Your task to perform on an android device: allow cookies in the chrome app Image 0: 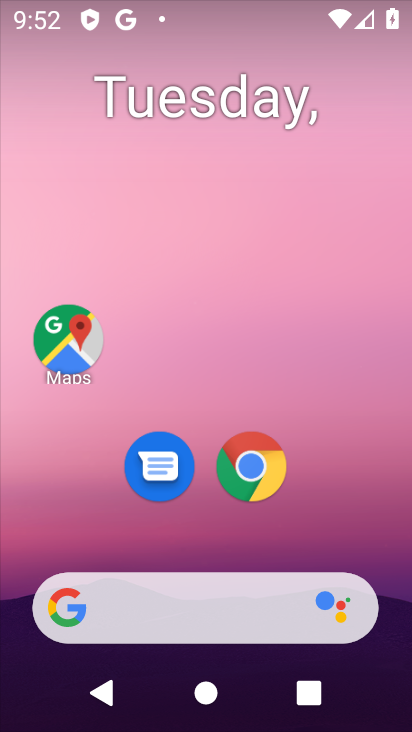
Step 0: click (255, 462)
Your task to perform on an android device: allow cookies in the chrome app Image 1: 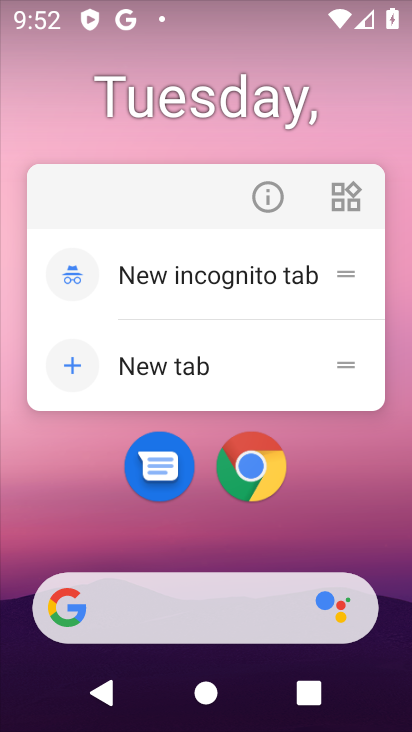
Step 1: click (253, 462)
Your task to perform on an android device: allow cookies in the chrome app Image 2: 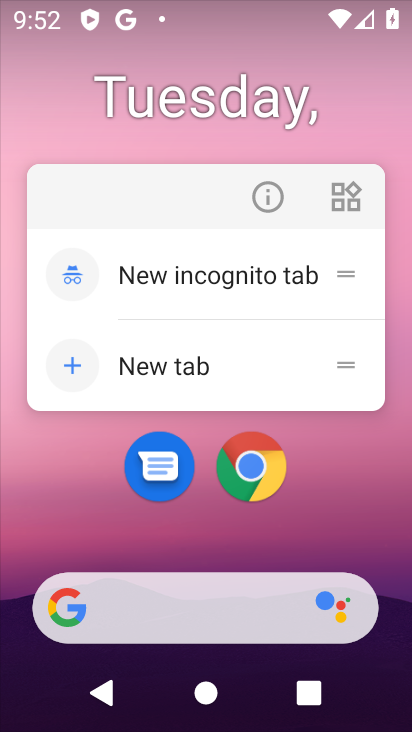
Step 2: click (339, 531)
Your task to perform on an android device: allow cookies in the chrome app Image 3: 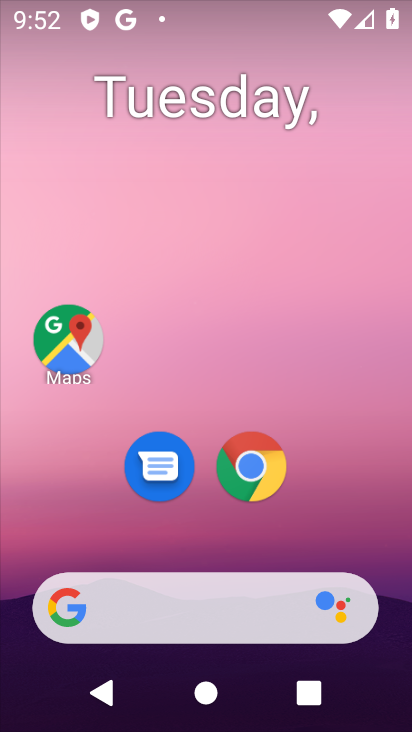
Step 3: drag from (339, 528) to (351, 136)
Your task to perform on an android device: allow cookies in the chrome app Image 4: 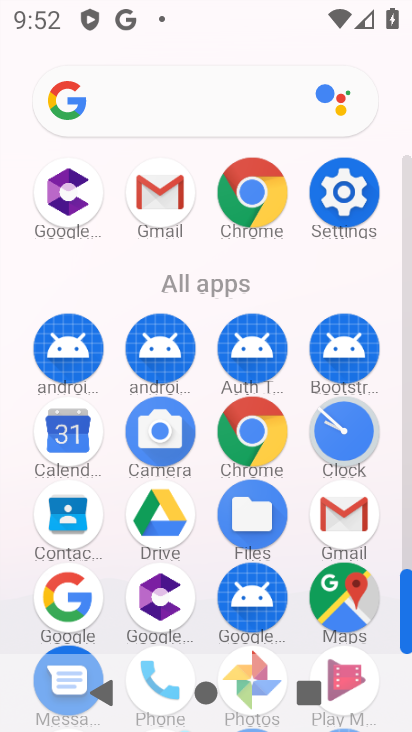
Step 4: click (251, 437)
Your task to perform on an android device: allow cookies in the chrome app Image 5: 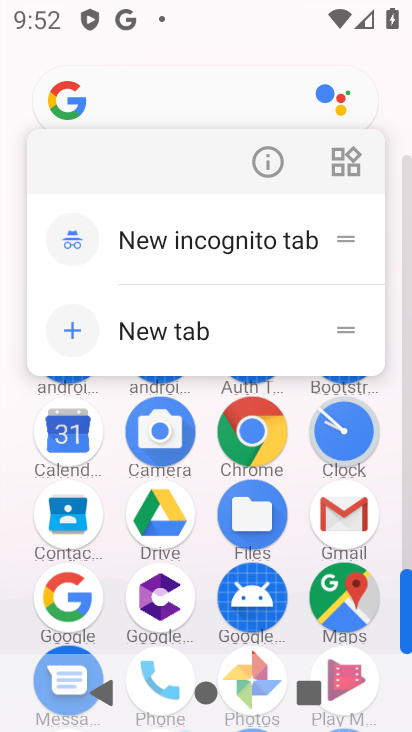
Step 5: click (253, 434)
Your task to perform on an android device: allow cookies in the chrome app Image 6: 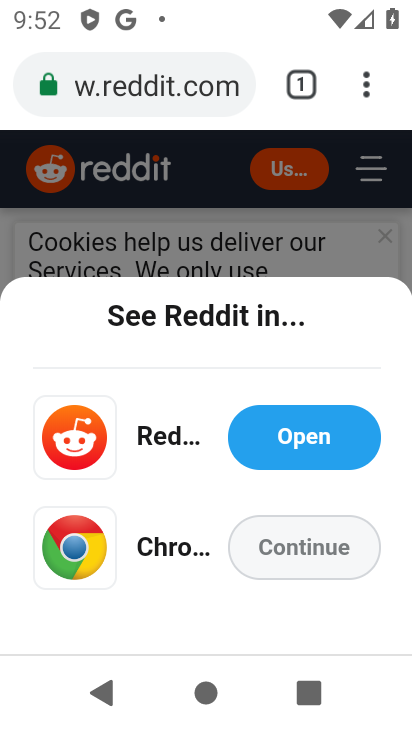
Step 6: click (362, 82)
Your task to perform on an android device: allow cookies in the chrome app Image 7: 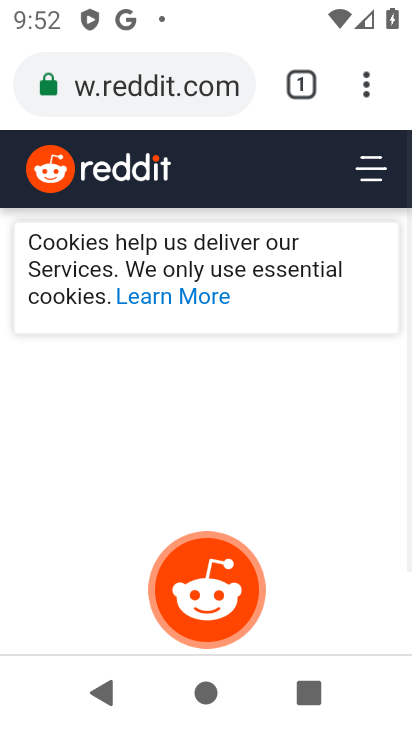
Step 7: drag from (369, 79) to (263, 515)
Your task to perform on an android device: allow cookies in the chrome app Image 8: 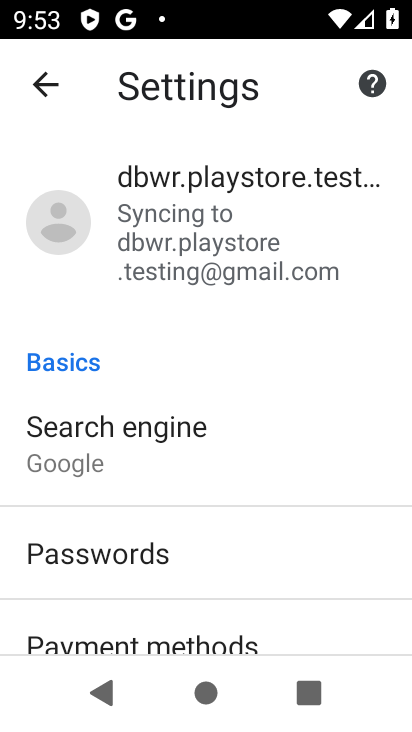
Step 8: drag from (215, 488) to (223, 35)
Your task to perform on an android device: allow cookies in the chrome app Image 9: 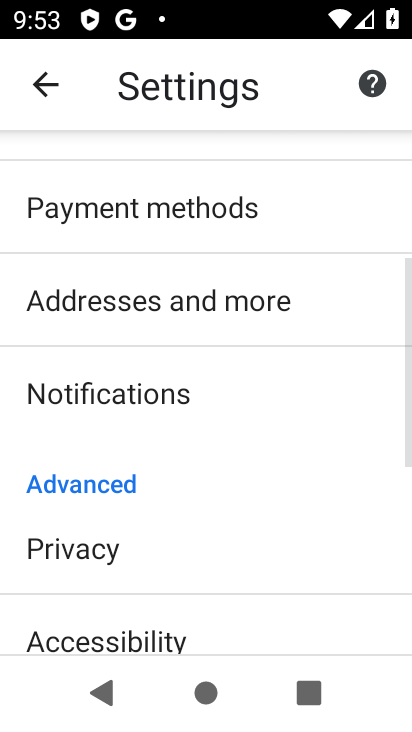
Step 9: drag from (205, 456) to (282, 157)
Your task to perform on an android device: allow cookies in the chrome app Image 10: 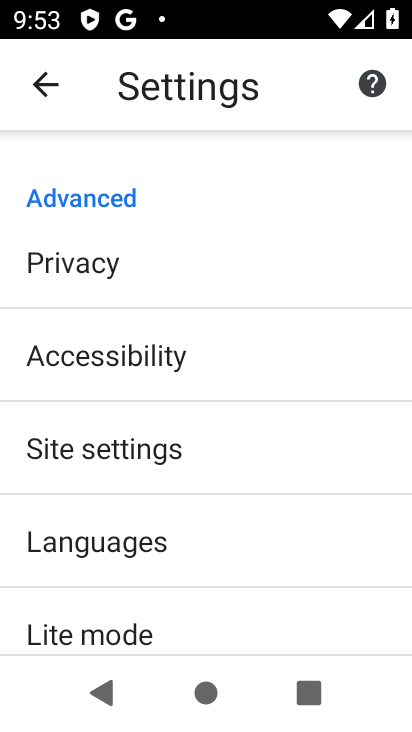
Step 10: click (189, 459)
Your task to perform on an android device: allow cookies in the chrome app Image 11: 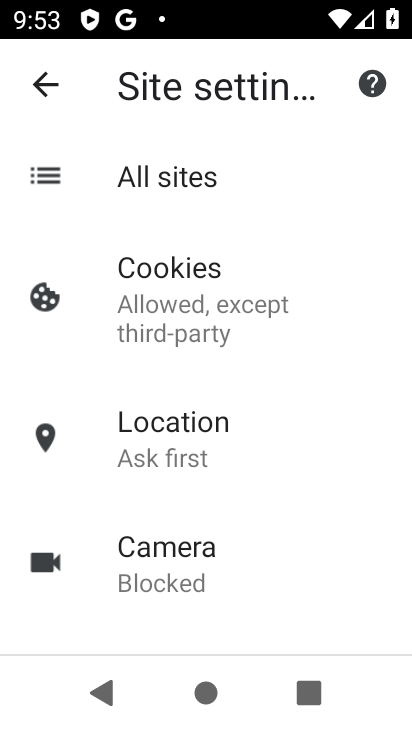
Step 11: drag from (242, 562) to (292, 239)
Your task to perform on an android device: allow cookies in the chrome app Image 12: 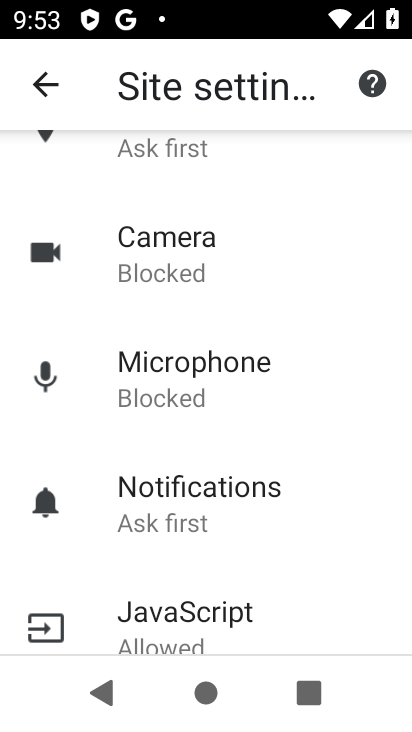
Step 12: drag from (233, 566) to (273, 170)
Your task to perform on an android device: allow cookies in the chrome app Image 13: 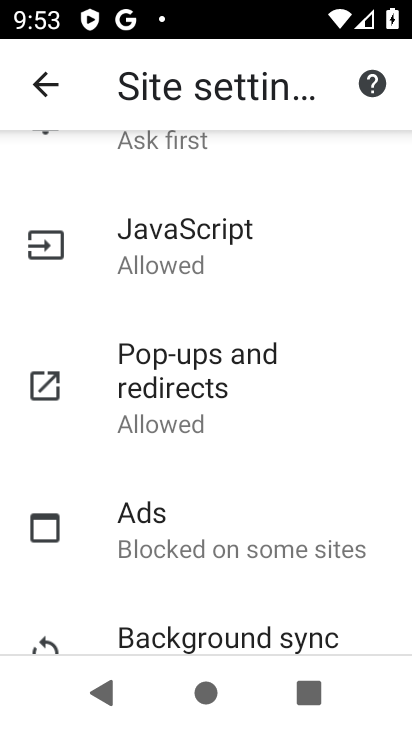
Step 13: drag from (219, 550) to (274, 196)
Your task to perform on an android device: allow cookies in the chrome app Image 14: 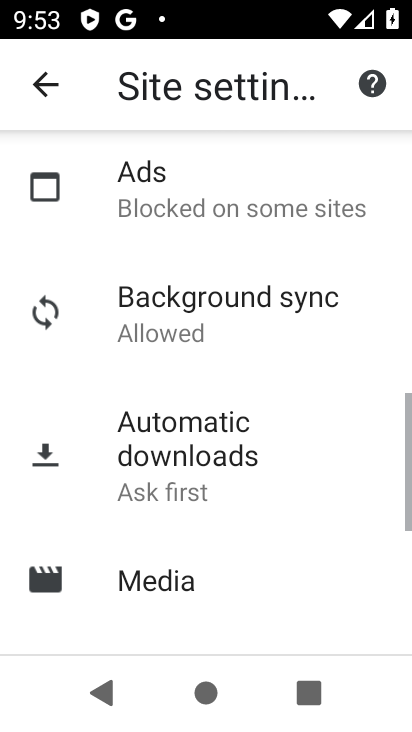
Step 14: click (279, 177)
Your task to perform on an android device: allow cookies in the chrome app Image 15: 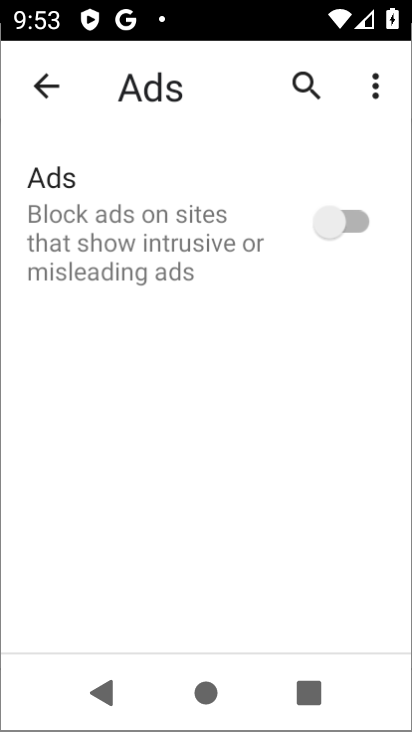
Step 15: drag from (236, 528) to (295, 181)
Your task to perform on an android device: allow cookies in the chrome app Image 16: 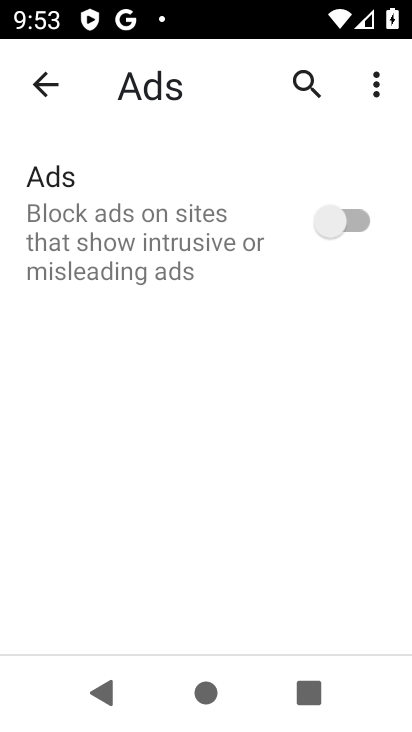
Step 16: click (51, 88)
Your task to perform on an android device: allow cookies in the chrome app Image 17: 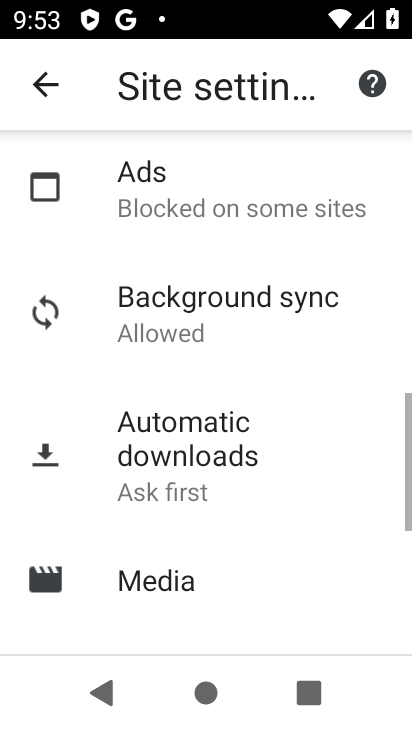
Step 17: drag from (222, 614) to (298, 181)
Your task to perform on an android device: allow cookies in the chrome app Image 18: 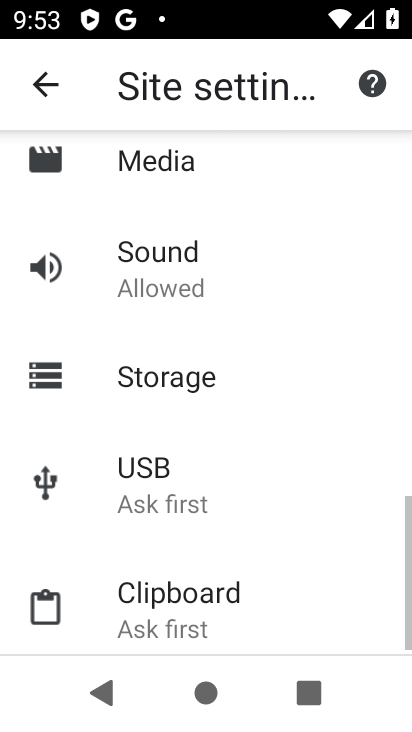
Step 18: drag from (298, 181) to (294, 697)
Your task to perform on an android device: allow cookies in the chrome app Image 19: 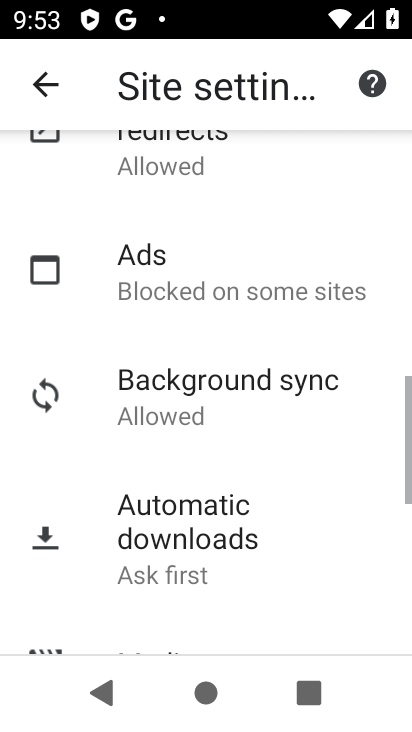
Step 19: drag from (287, 259) to (276, 725)
Your task to perform on an android device: allow cookies in the chrome app Image 20: 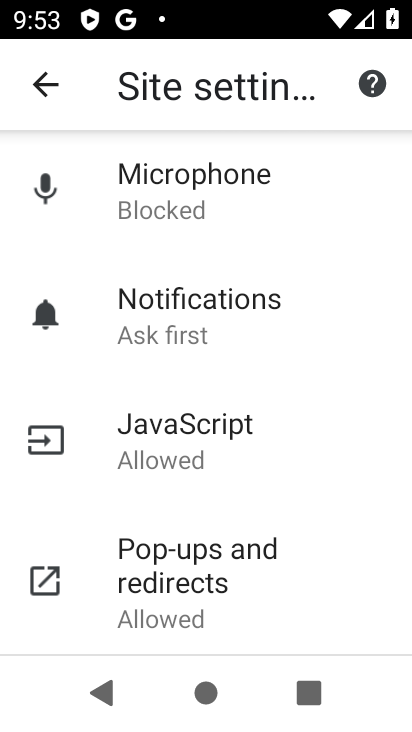
Step 20: drag from (224, 220) to (250, 694)
Your task to perform on an android device: allow cookies in the chrome app Image 21: 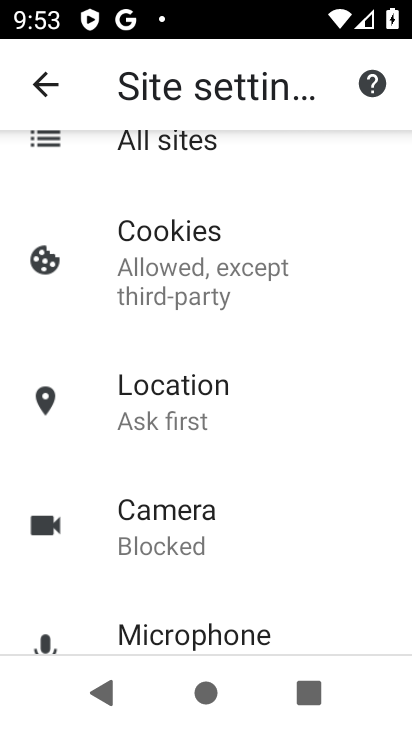
Step 21: click (219, 261)
Your task to perform on an android device: allow cookies in the chrome app Image 22: 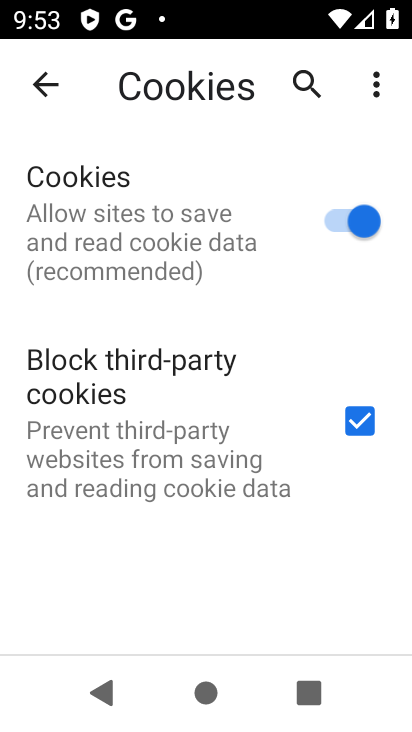
Step 22: task complete